Your task to perform on an android device: turn off location history Image 0: 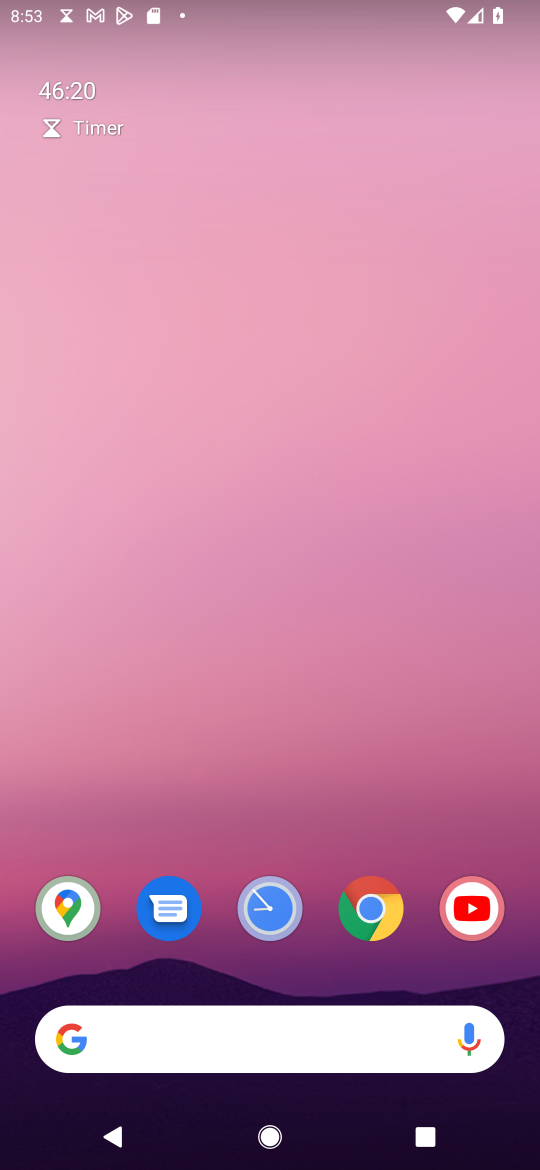
Step 0: drag from (242, 1044) to (274, 360)
Your task to perform on an android device: turn off location history Image 1: 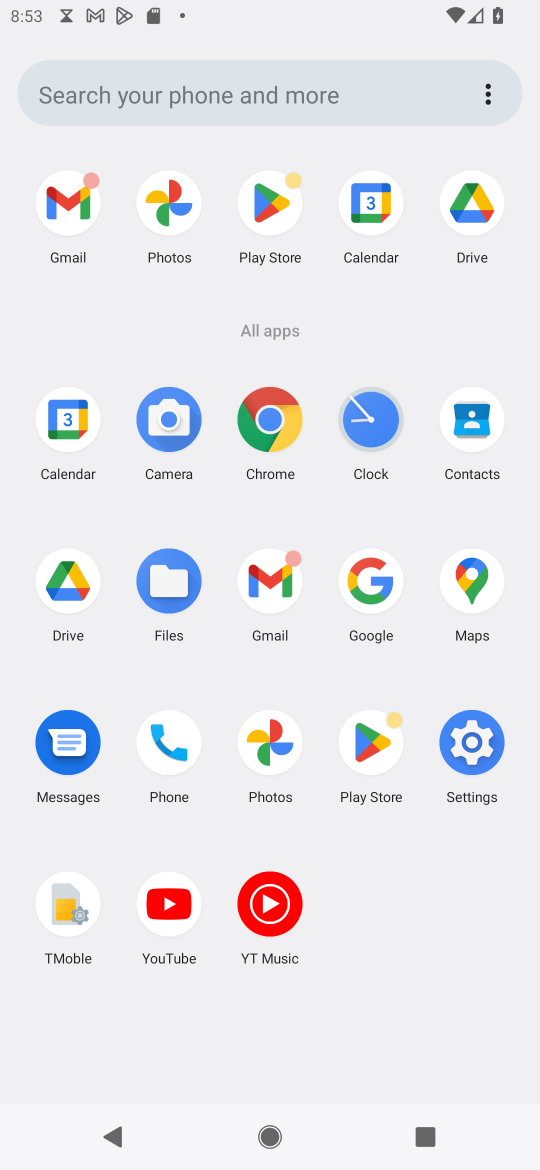
Step 1: click (439, 739)
Your task to perform on an android device: turn off location history Image 2: 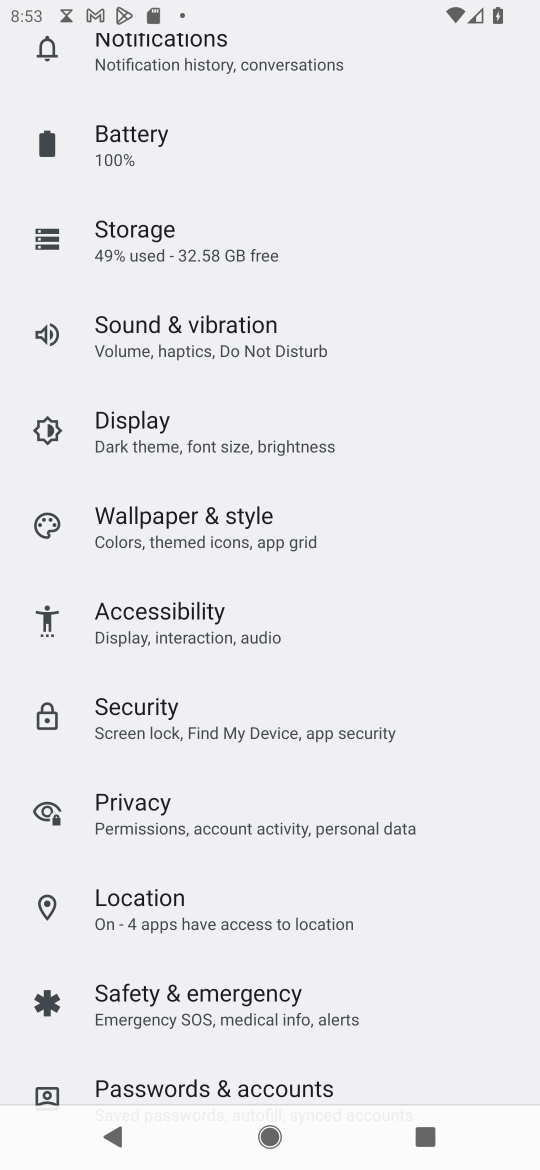
Step 2: click (206, 915)
Your task to perform on an android device: turn off location history Image 3: 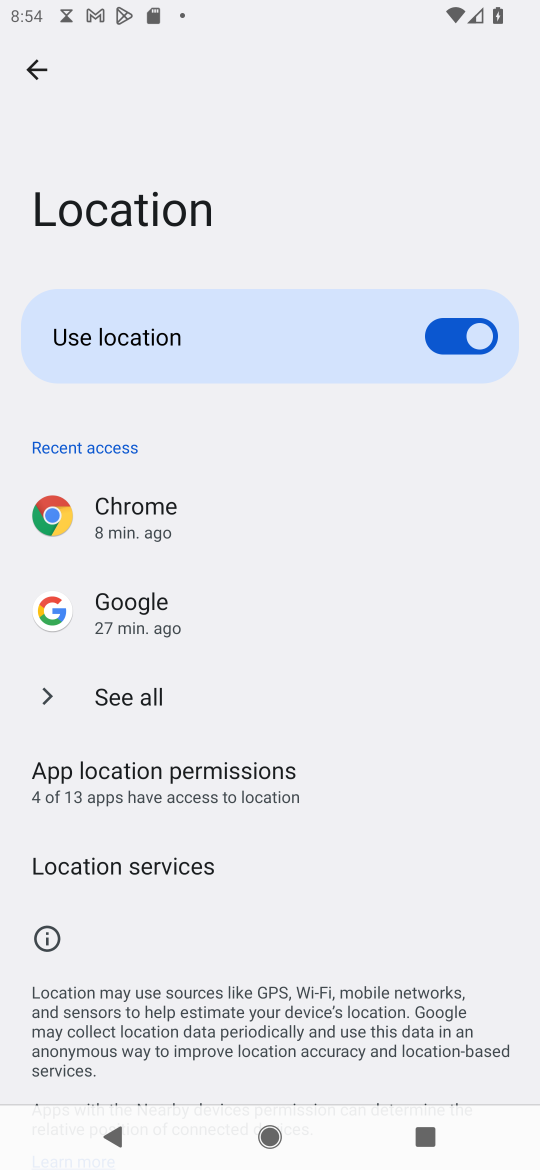
Step 3: click (218, 860)
Your task to perform on an android device: turn off location history Image 4: 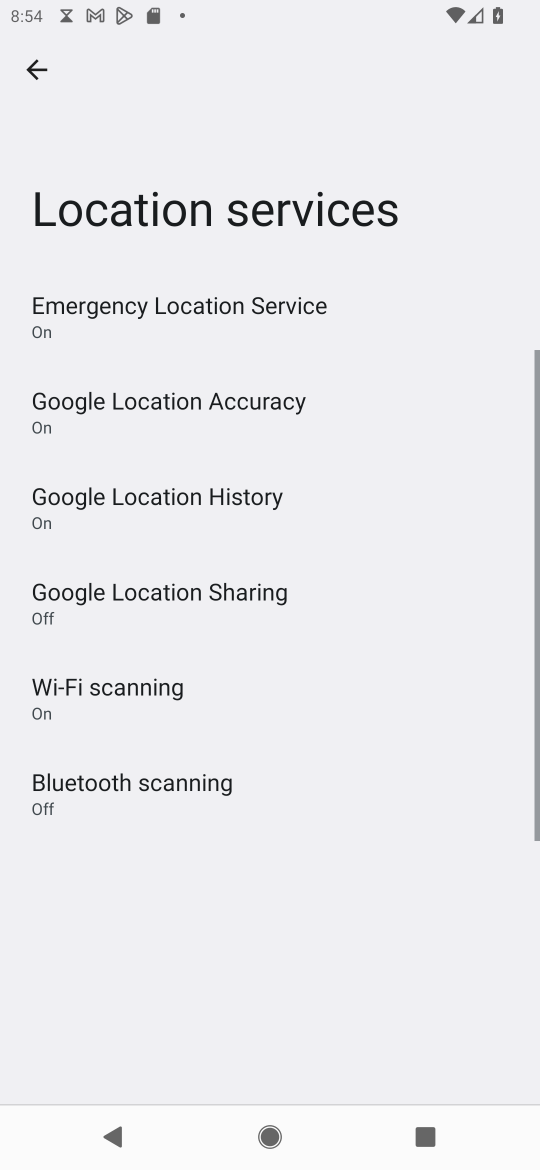
Step 4: click (253, 506)
Your task to perform on an android device: turn off location history Image 5: 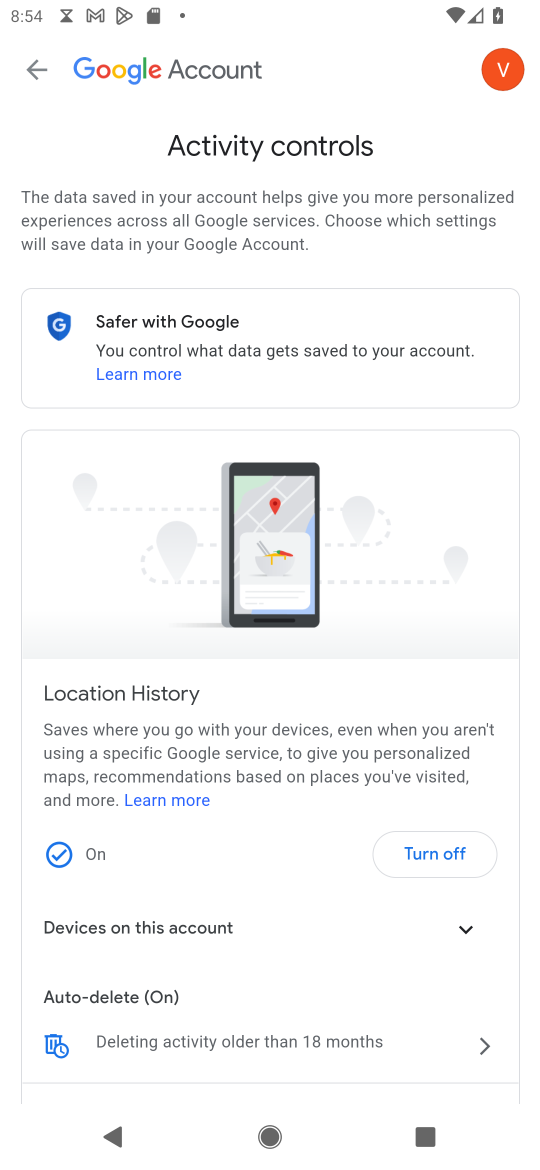
Step 5: click (435, 865)
Your task to perform on an android device: turn off location history Image 6: 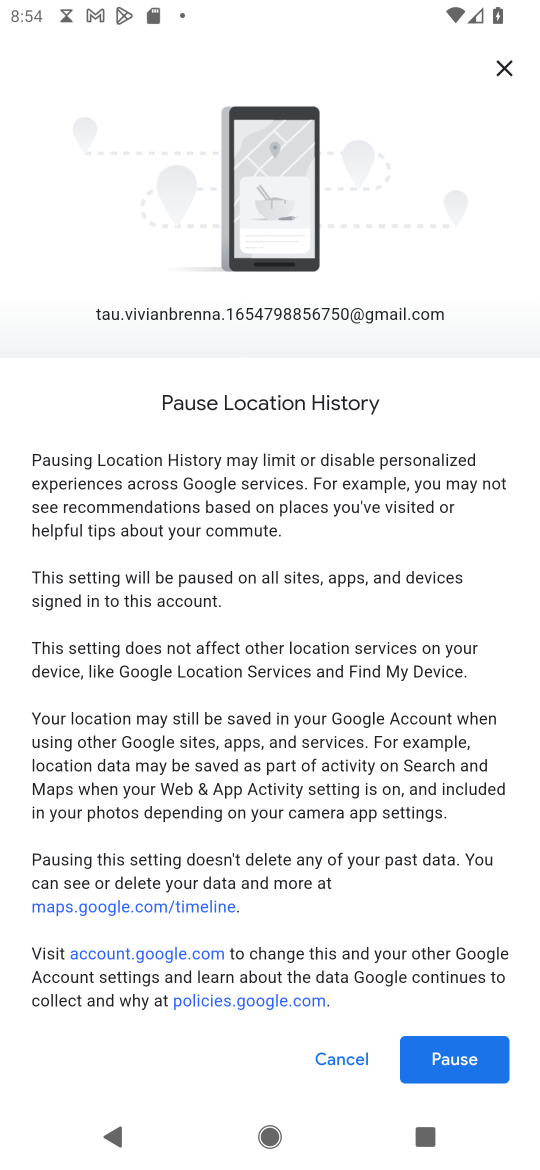
Step 6: click (459, 1055)
Your task to perform on an android device: turn off location history Image 7: 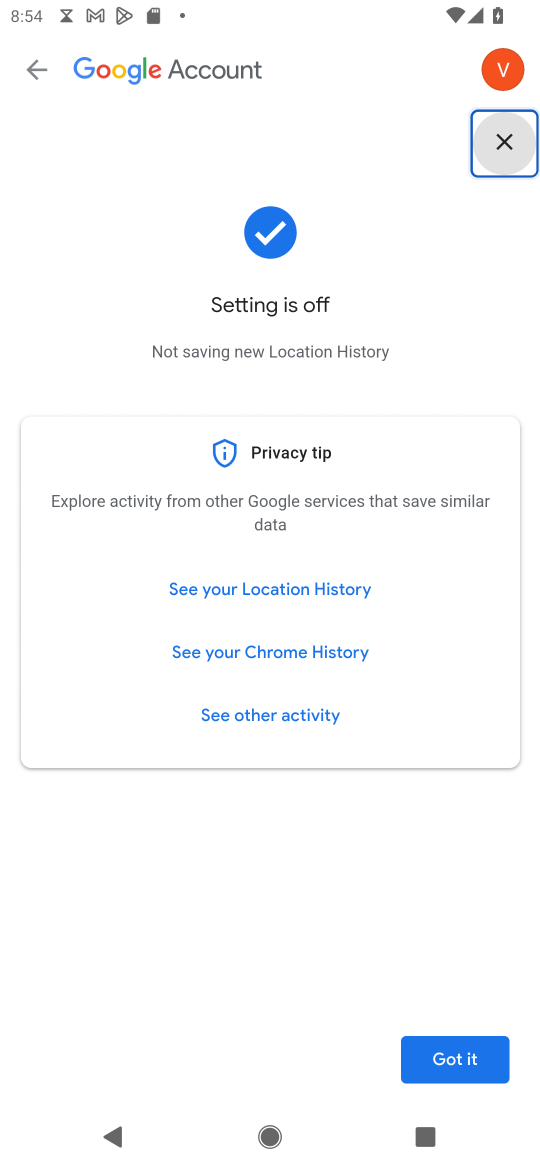
Step 7: click (409, 1052)
Your task to perform on an android device: turn off location history Image 8: 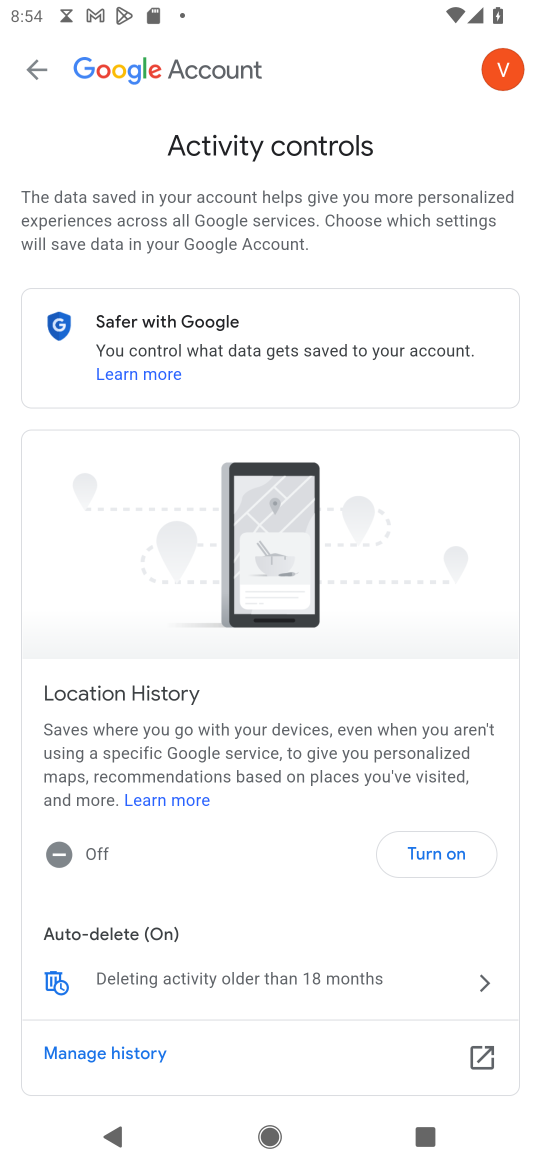
Step 8: task complete